Your task to perform on an android device: turn smart compose on in the gmail app Image 0: 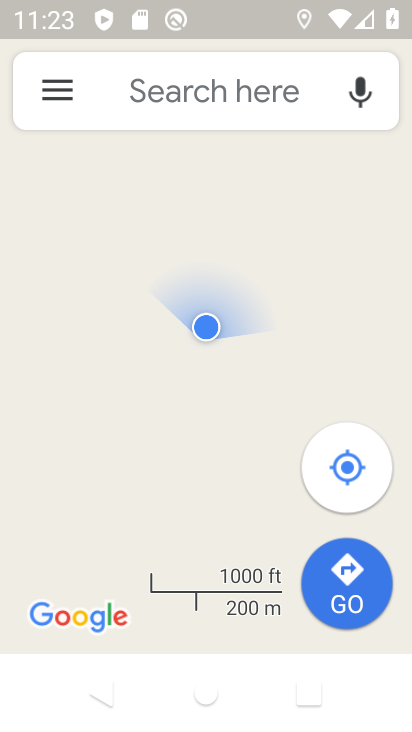
Step 0: press home button
Your task to perform on an android device: turn smart compose on in the gmail app Image 1: 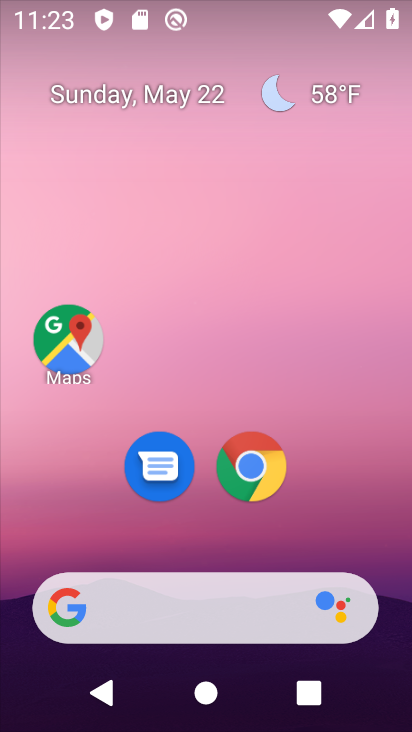
Step 1: drag from (301, 483) to (322, 108)
Your task to perform on an android device: turn smart compose on in the gmail app Image 2: 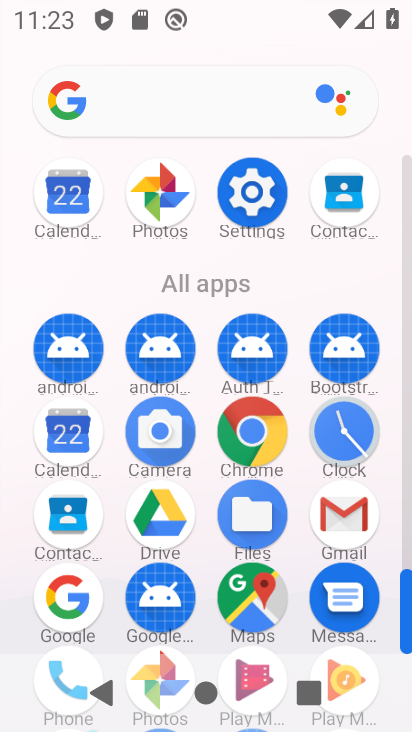
Step 2: click (353, 511)
Your task to perform on an android device: turn smart compose on in the gmail app Image 3: 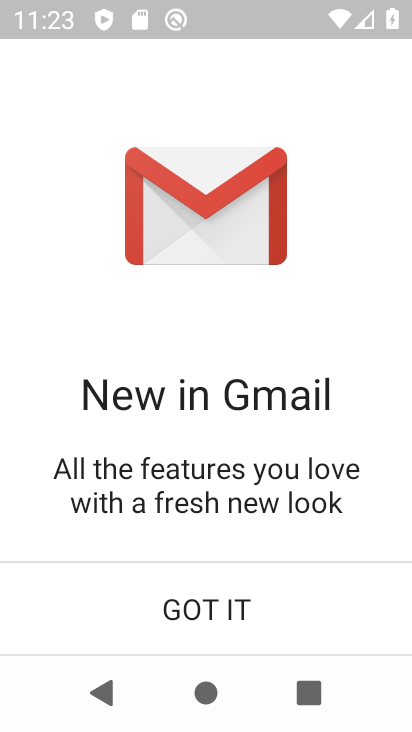
Step 3: click (196, 597)
Your task to perform on an android device: turn smart compose on in the gmail app Image 4: 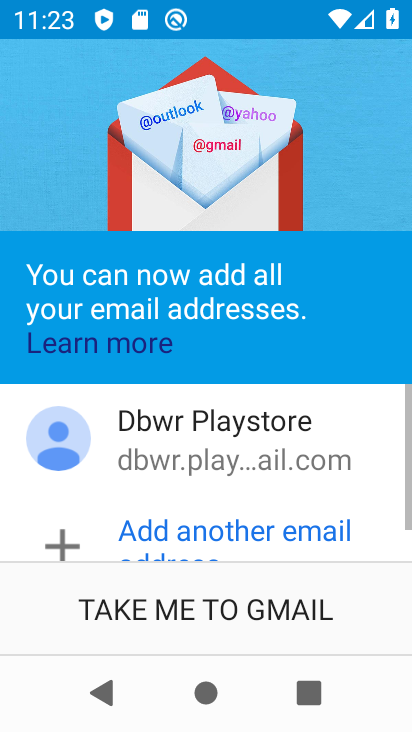
Step 4: click (196, 602)
Your task to perform on an android device: turn smart compose on in the gmail app Image 5: 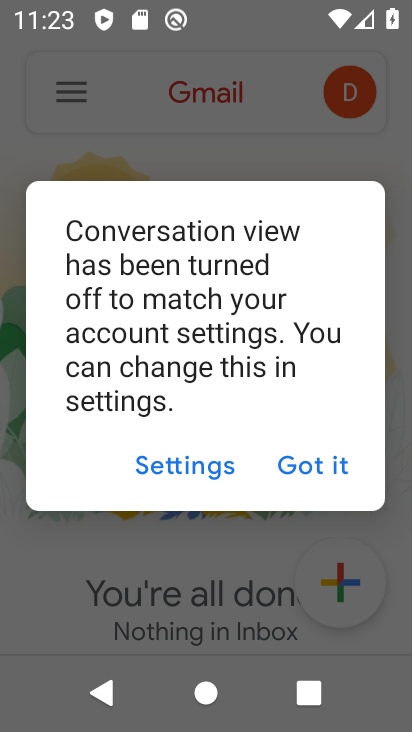
Step 5: click (307, 465)
Your task to perform on an android device: turn smart compose on in the gmail app Image 6: 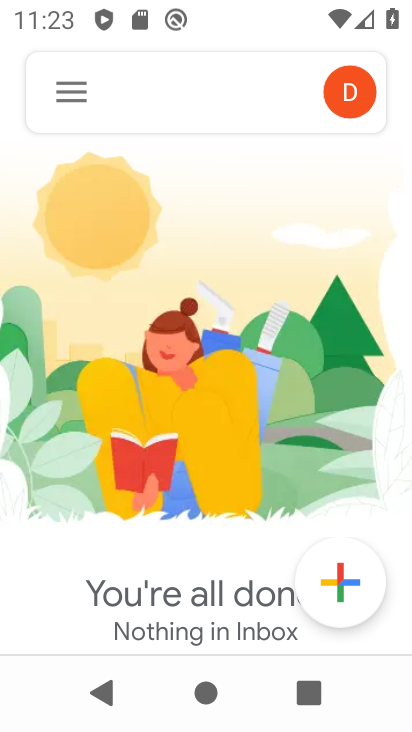
Step 6: click (78, 67)
Your task to perform on an android device: turn smart compose on in the gmail app Image 7: 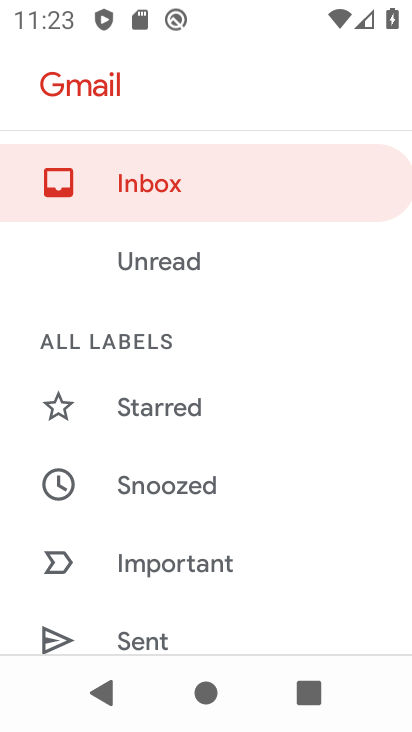
Step 7: drag from (185, 561) to (218, 205)
Your task to perform on an android device: turn smart compose on in the gmail app Image 8: 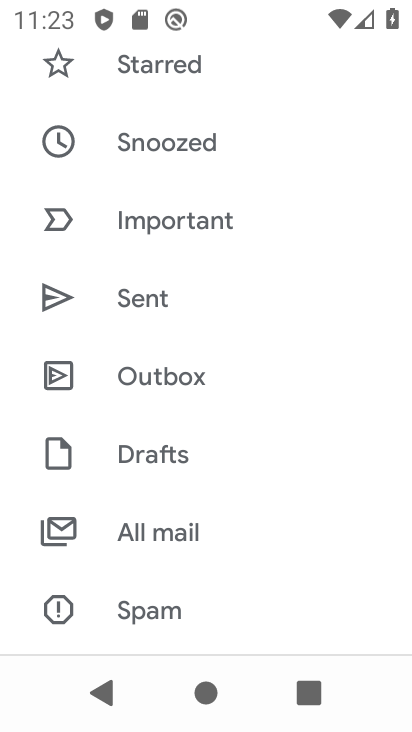
Step 8: drag from (189, 582) to (216, 274)
Your task to perform on an android device: turn smart compose on in the gmail app Image 9: 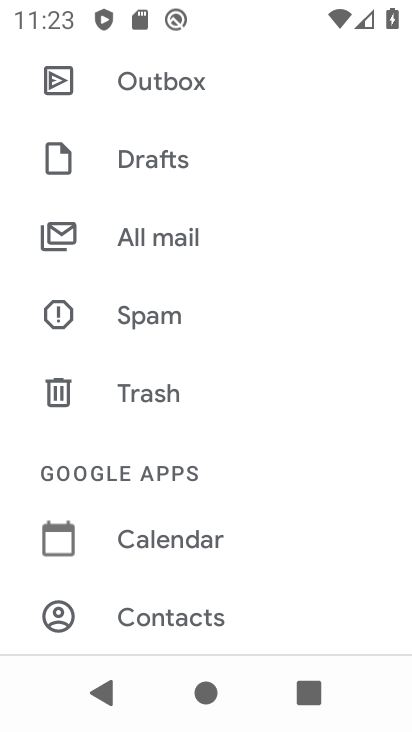
Step 9: drag from (232, 598) to (237, 249)
Your task to perform on an android device: turn smart compose on in the gmail app Image 10: 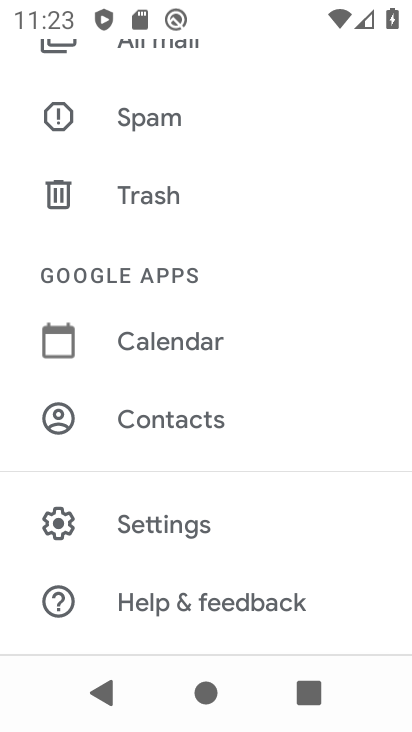
Step 10: click (205, 531)
Your task to perform on an android device: turn smart compose on in the gmail app Image 11: 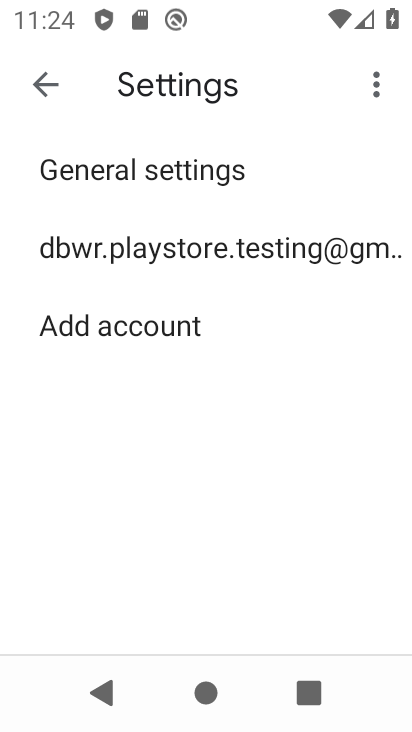
Step 11: click (195, 252)
Your task to perform on an android device: turn smart compose on in the gmail app Image 12: 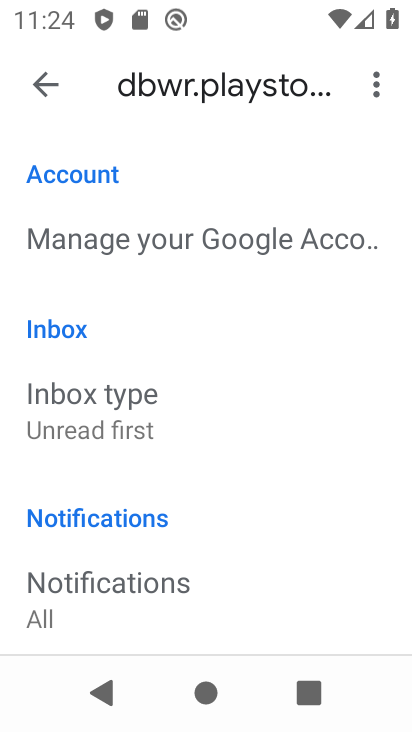
Step 12: task complete